Your task to perform on an android device: turn off priority inbox in the gmail app Image 0: 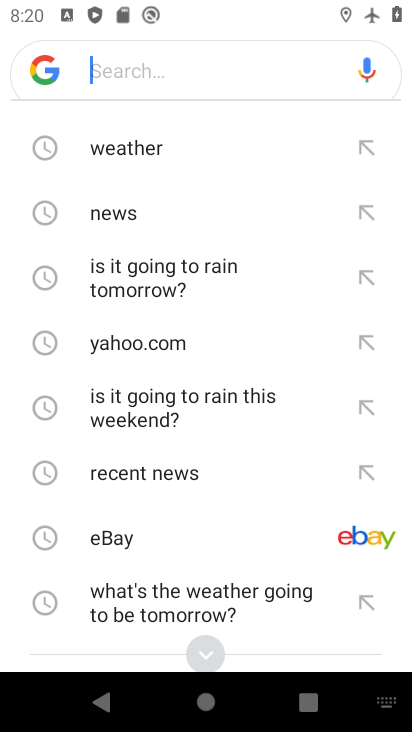
Step 0: press home button
Your task to perform on an android device: turn off priority inbox in the gmail app Image 1: 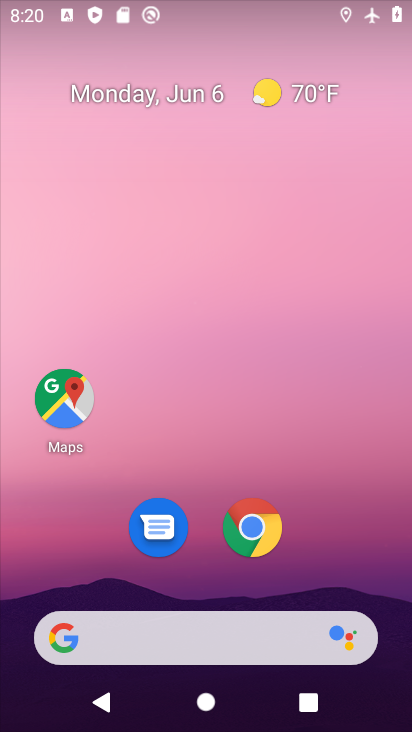
Step 1: drag from (202, 598) to (224, 338)
Your task to perform on an android device: turn off priority inbox in the gmail app Image 2: 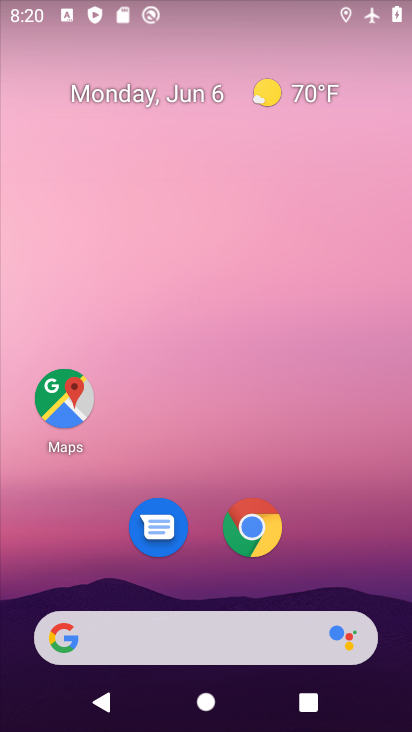
Step 2: drag from (218, 625) to (218, 317)
Your task to perform on an android device: turn off priority inbox in the gmail app Image 3: 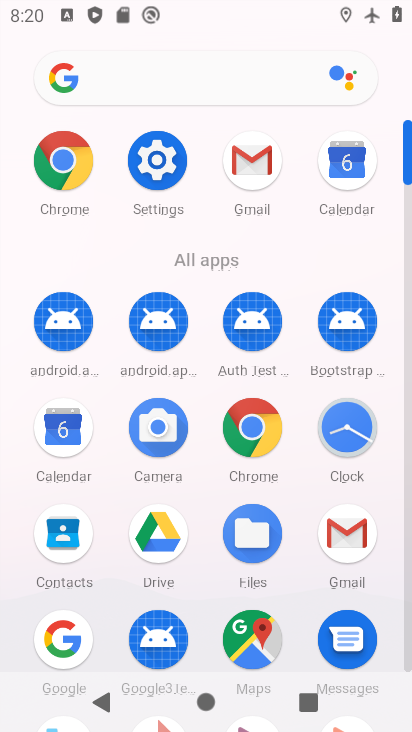
Step 3: click (344, 543)
Your task to perform on an android device: turn off priority inbox in the gmail app Image 4: 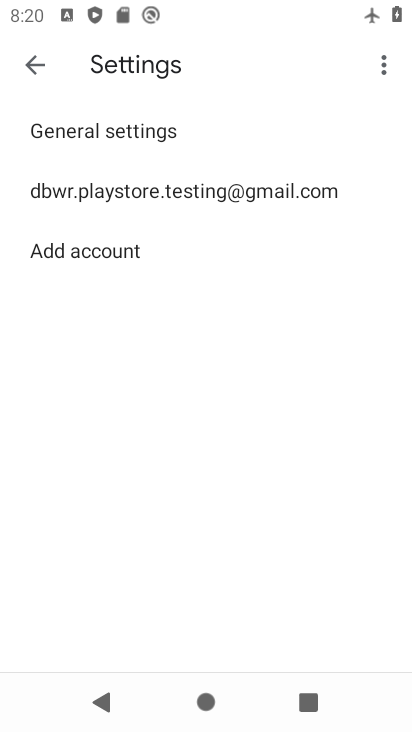
Step 4: click (143, 198)
Your task to perform on an android device: turn off priority inbox in the gmail app Image 5: 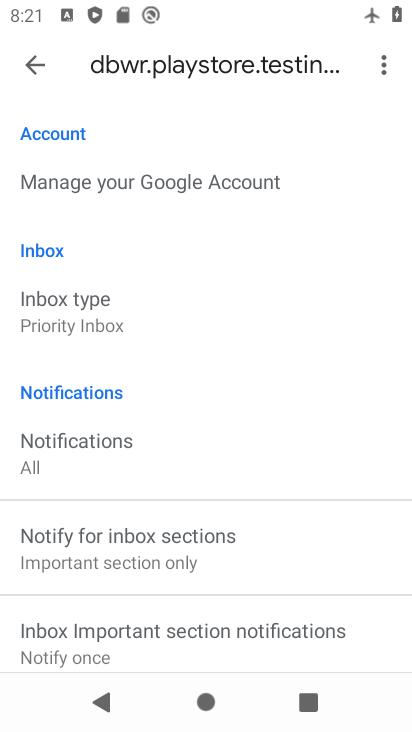
Step 5: click (137, 296)
Your task to perform on an android device: turn off priority inbox in the gmail app Image 6: 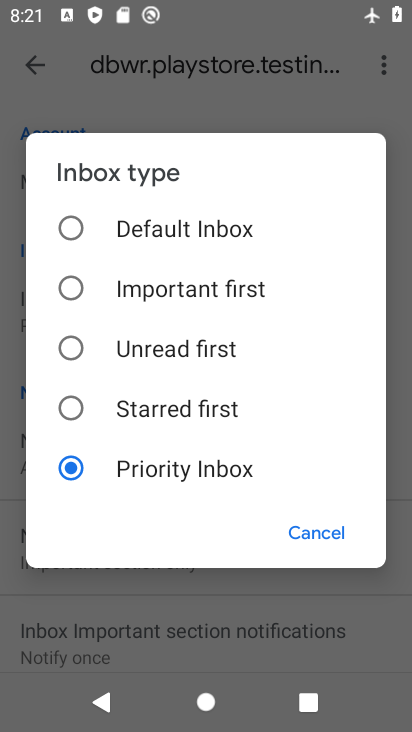
Step 6: click (102, 229)
Your task to perform on an android device: turn off priority inbox in the gmail app Image 7: 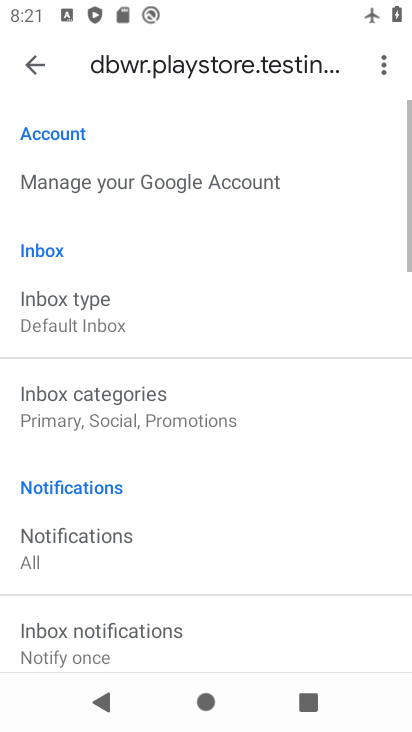
Step 7: task complete